Your task to perform on an android device: Toggle the flashlight Image 0: 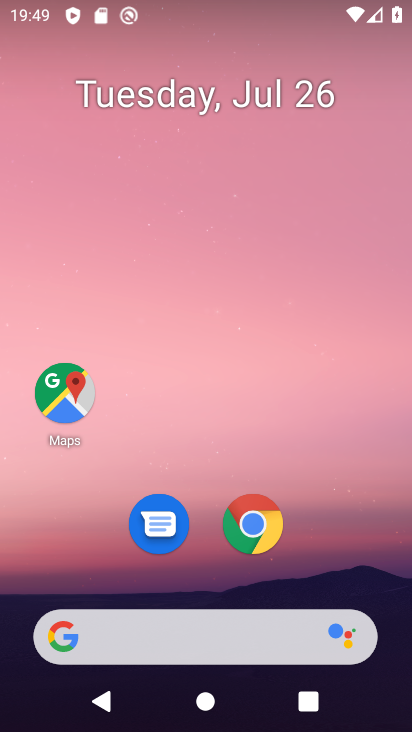
Step 0: drag from (250, 0) to (179, 430)
Your task to perform on an android device: Toggle the flashlight Image 1: 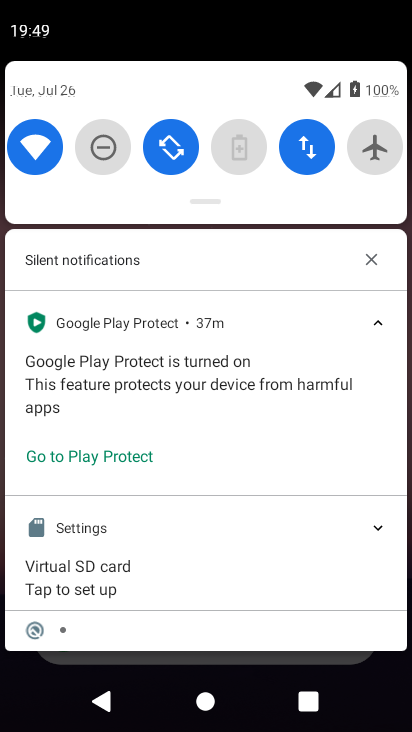
Step 1: task complete